Your task to perform on an android device: check battery use Image 0: 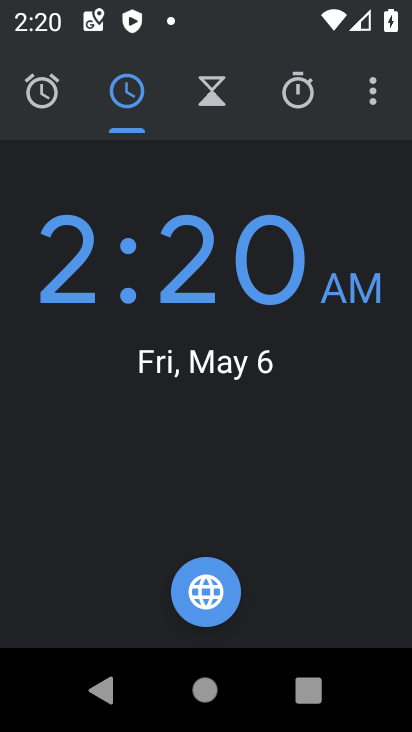
Step 0: press home button
Your task to perform on an android device: check battery use Image 1: 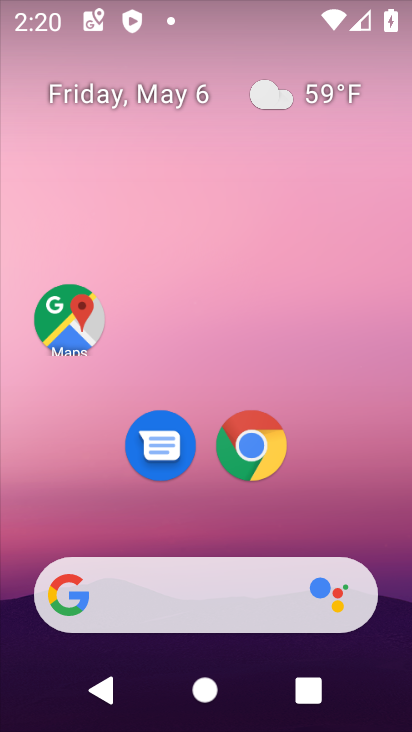
Step 1: drag from (357, 533) to (225, 83)
Your task to perform on an android device: check battery use Image 2: 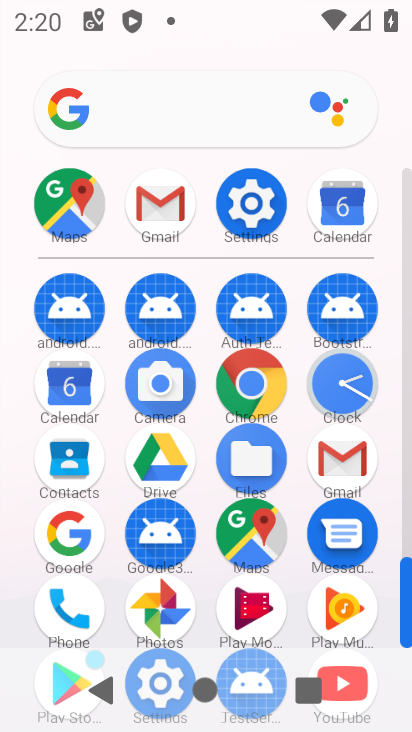
Step 2: click (259, 208)
Your task to perform on an android device: check battery use Image 3: 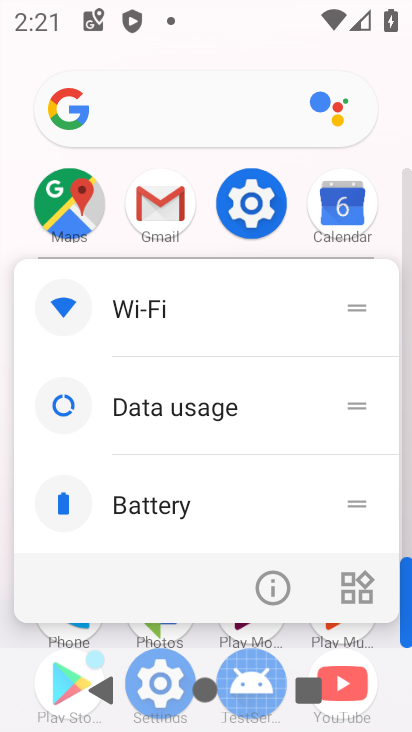
Step 3: click (146, 501)
Your task to perform on an android device: check battery use Image 4: 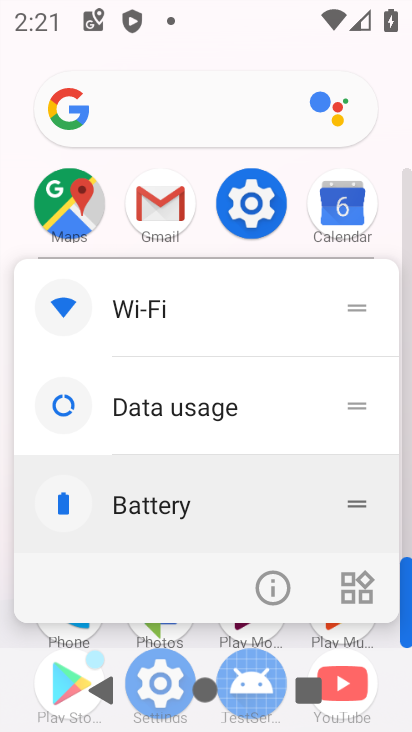
Step 4: click (143, 504)
Your task to perform on an android device: check battery use Image 5: 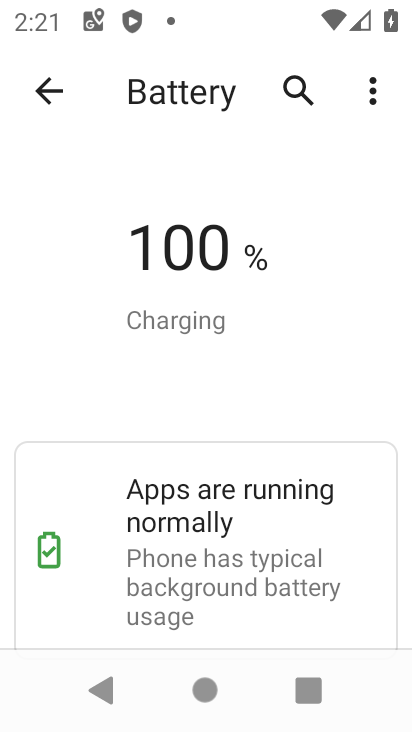
Step 5: task complete